Your task to perform on an android device: Do I have any events this weekend? Image 0: 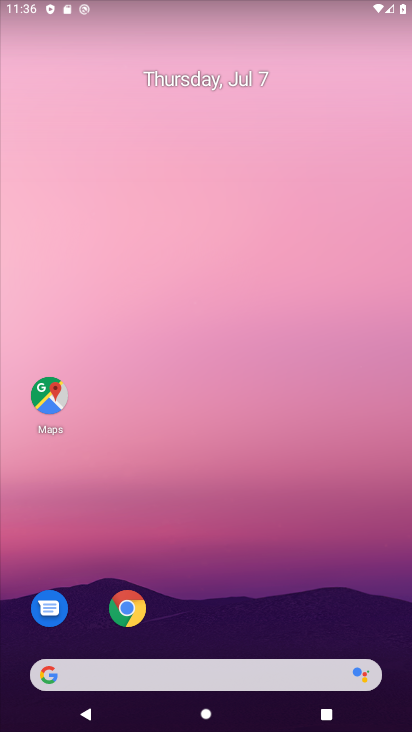
Step 0: drag from (345, 605) to (273, 248)
Your task to perform on an android device: Do I have any events this weekend? Image 1: 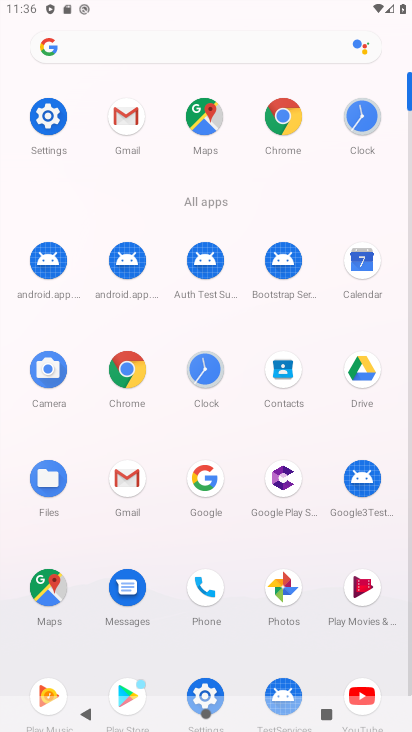
Step 1: click (230, 58)
Your task to perform on an android device: Do I have any events this weekend? Image 2: 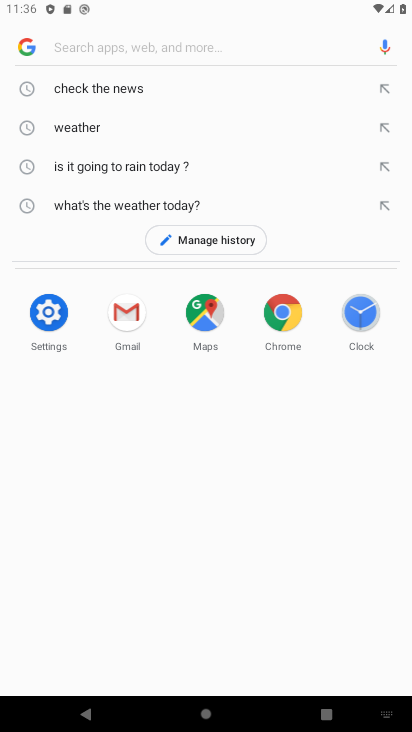
Step 2: press home button
Your task to perform on an android device: Do I have any events this weekend? Image 3: 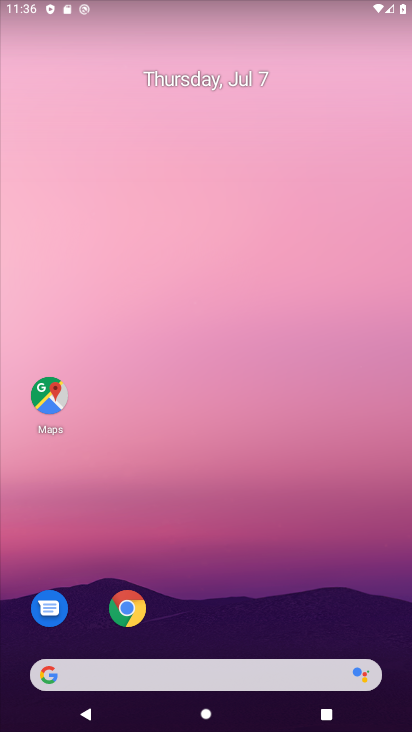
Step 3: drag from (315, 591) to (275, 303)
Your task to perform on an android device: Do I have any events this weekend? Image 4: 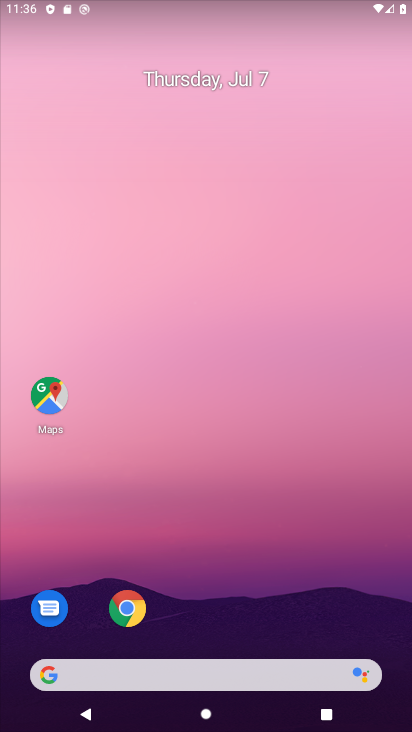
Step 4: drag from (284, 636) to (214, 170)
Your task to perform on an android device: Do I have any events this weekend? Image 5: 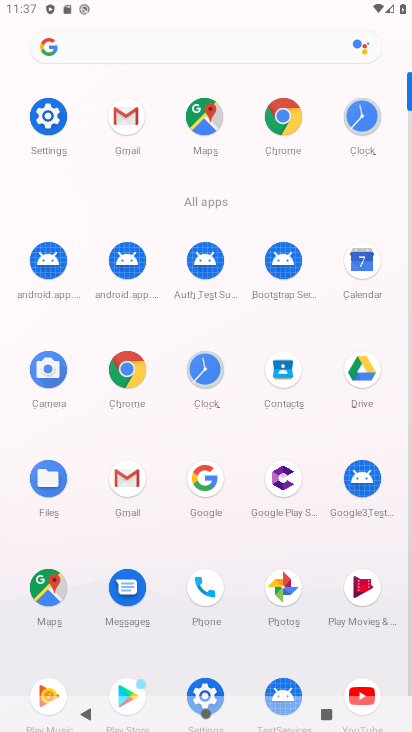
Step 5: click (365, 253)
Your task to perform on an android device: Do I have any events this weekend? Image 6: 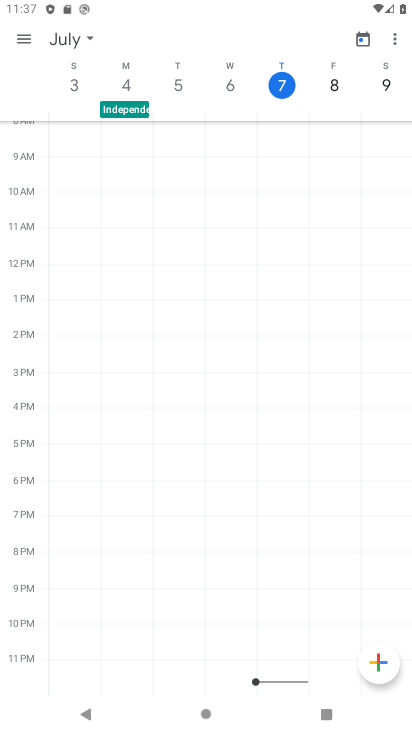
Step 6: task complete